Your task to perform on an android device: Open wifi settings Image 0: 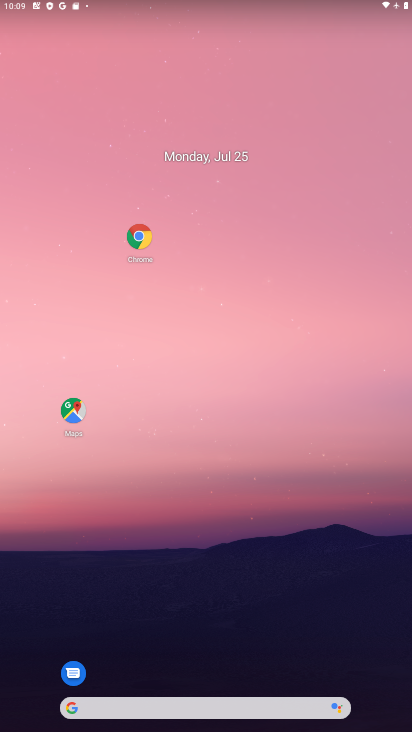
Step 0: task complete